Your task to perform on an android device: Open Google Chrome and click the shortcut for Amazon.com Image 0: 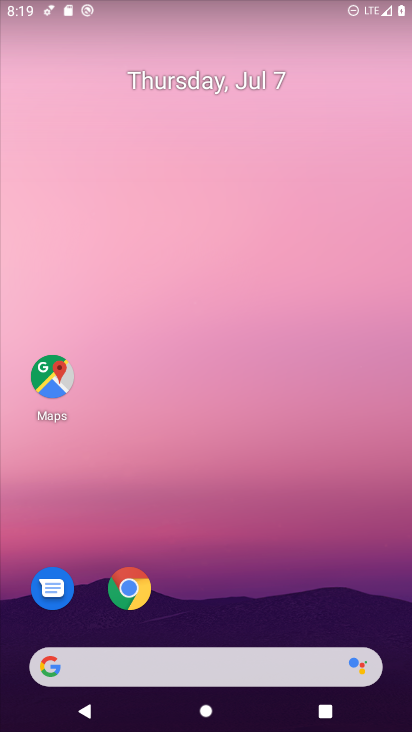
Step 0: drag from (242, 604) to (215, 230)
Your task to perform on an android device: Open Google Chrome and click the shortcut for Amazon.com Image 1: 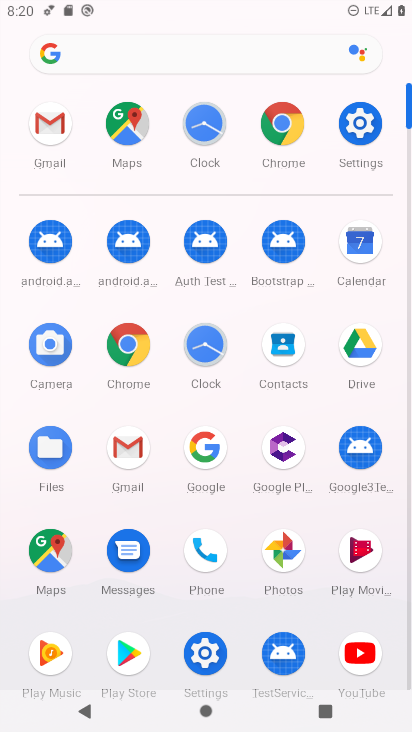
Step 1: click (130, 344)
Your task to perform on an android device: Open Google Chrome and click the shortcut for Amazon.com Image 2: 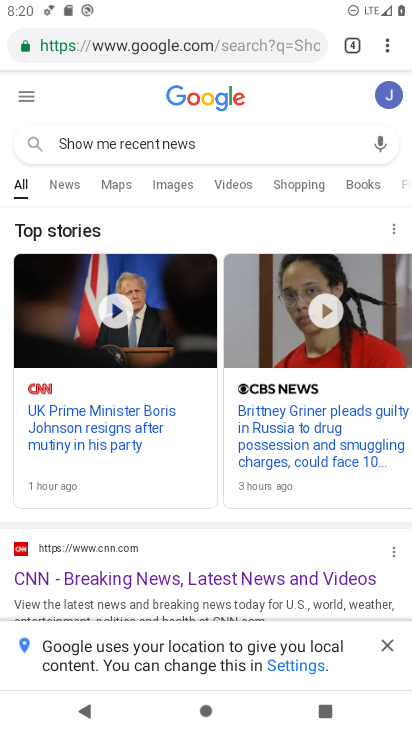
Step 2: click (389, 42)
Your task to perform on an android device: Open Google Chrome and click the shortcut for Amazon.com Image 3: 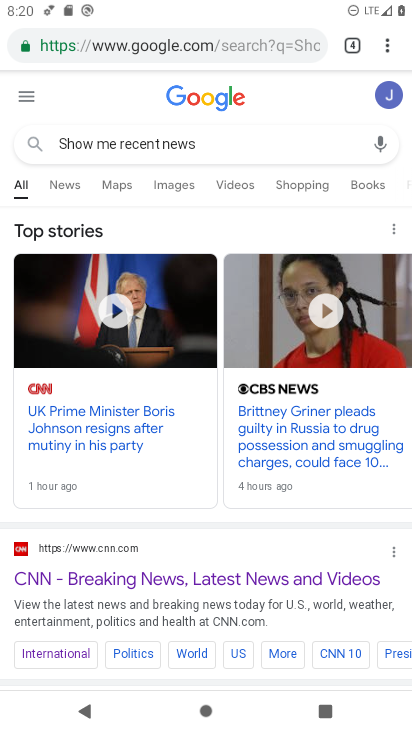
Step 3: click (395, 35)
Your task to perform on an android device: Open Google Chrome and click the shortcut for Amazon.com Image 4: 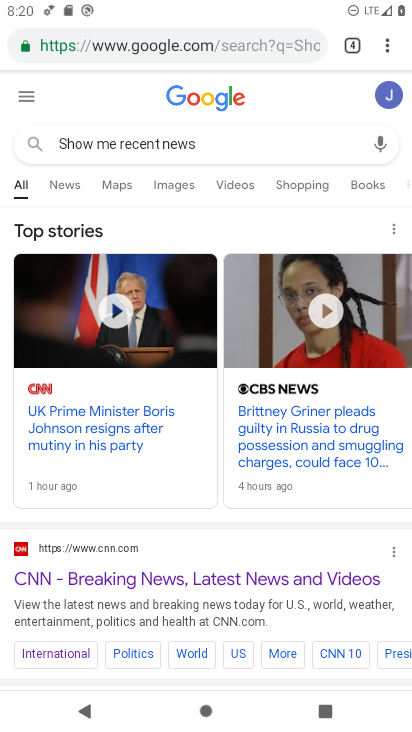
Step 4: click (383, 45)
Your task to perform on an android device: Open Google Chrome and click the shortcut for Amazon.com Image 5: 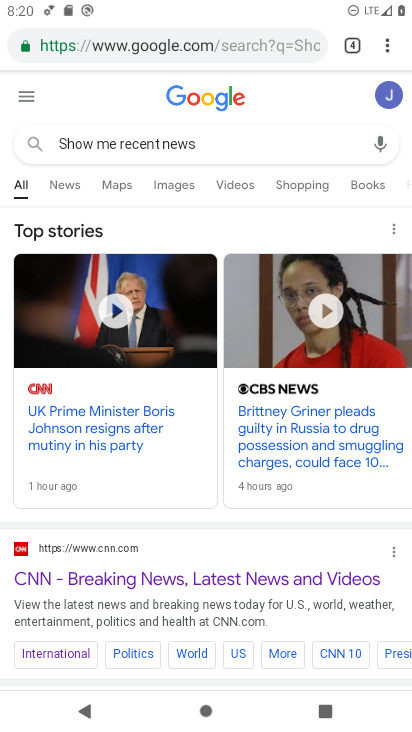
Step 5: click (403, 38)
Your task to perform on an android device: Open Google Chrome and click the shortcut for Amazon.com Image 6: 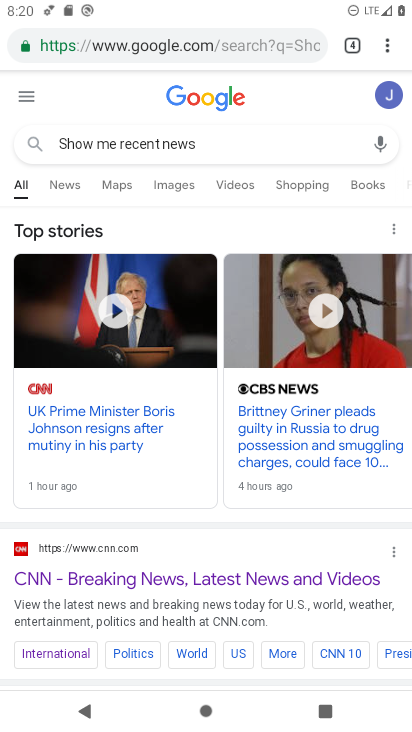
Step 6: click (382, 47)
Your task to perform on an android device: Open Google Chrome and click the shortcut for Amazon.com Image 7: 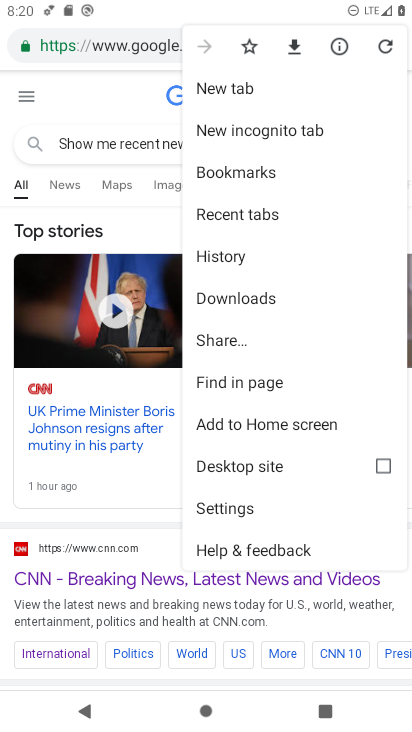
Step 7: click (243, 87)
Your task to perform on an android device: Open Google Chrome and click the shortcut for Amazon.com Image 8: 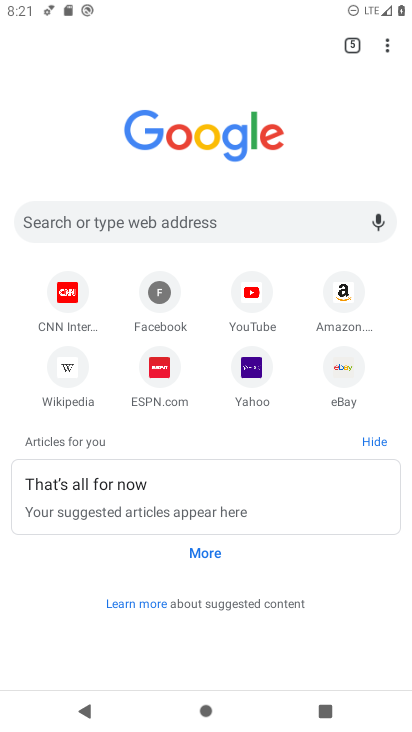
Step 8: click (351, 284)
Your task to perform on an android device: Open Google Chrome and click the shortcut for Amazon.com Image 9: 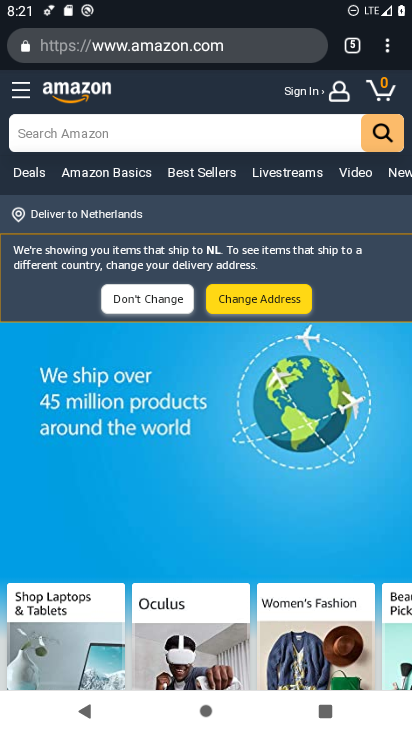
Step 9: task complete